Your task to perform on an android device: find which apps use the phone's location Image 0: 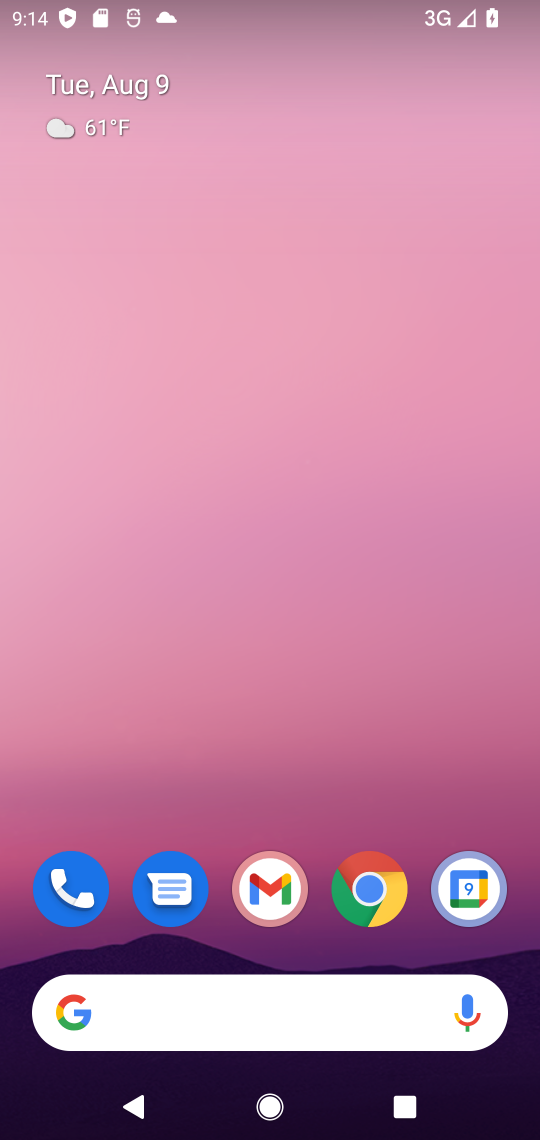
Step 0: drag from (198, 808) to (350, 71)
Your task to perform on an android device: find which apps use the phone's location Image 1: 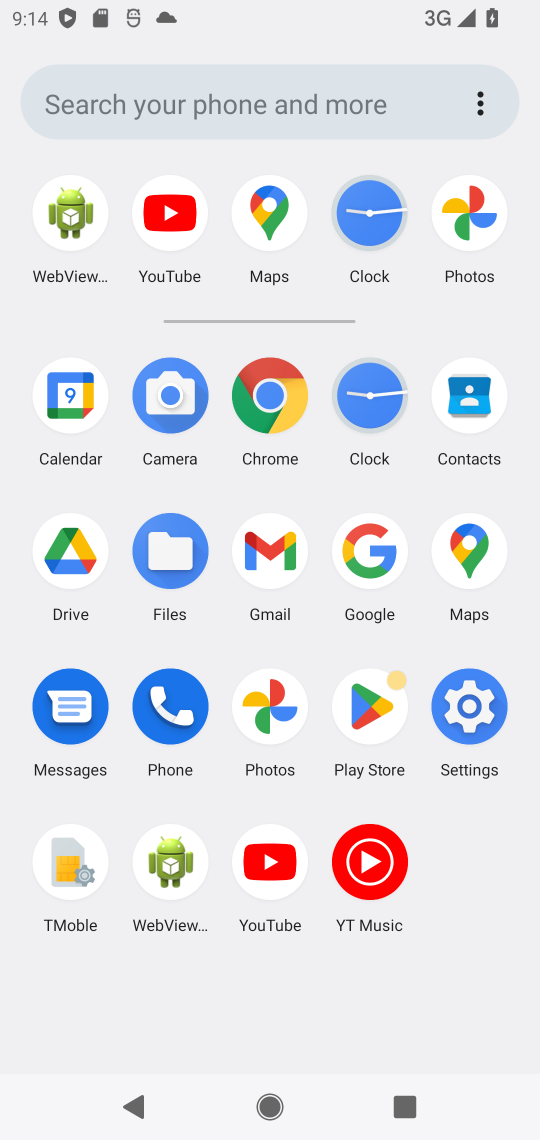
Step 1: click (473, 719)
Your task to perform on an android device: find which apps use the phone's location Image 2: 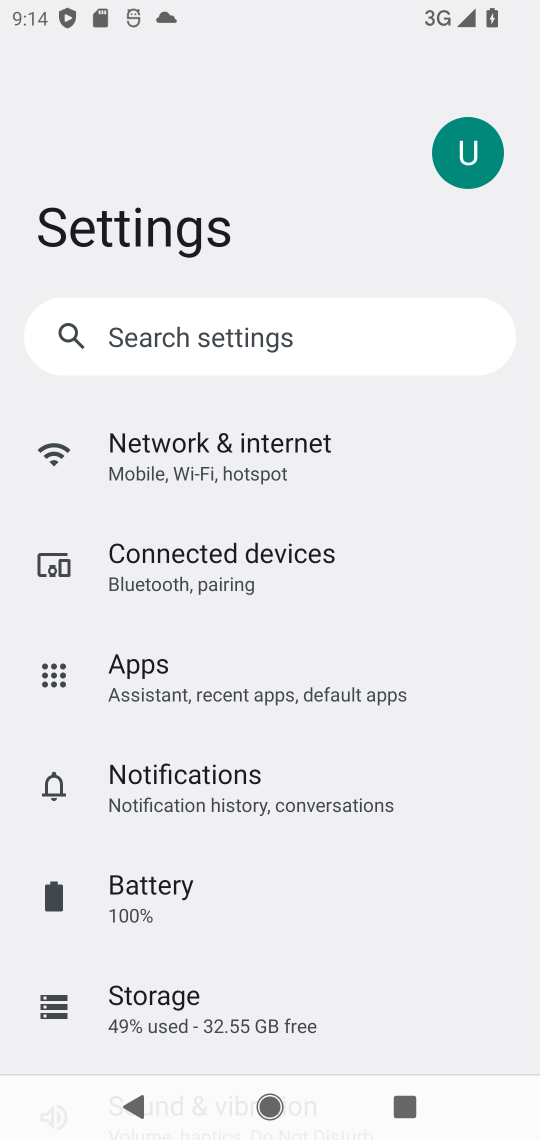
Step 2: drag from (201, 959) to (101, 345)
Your task to perform on an android device: find which apps use the phone's location Image 3: 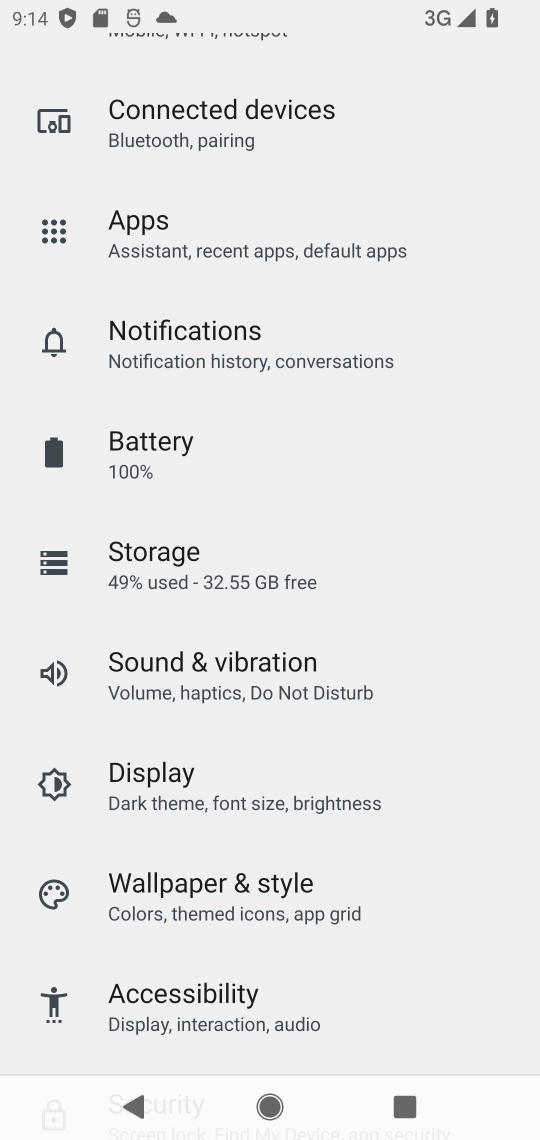
Step 3: drag from (169, 990) to (102, 354)
Your task to perform on an android device: find which apps use the phone's location Image 4: 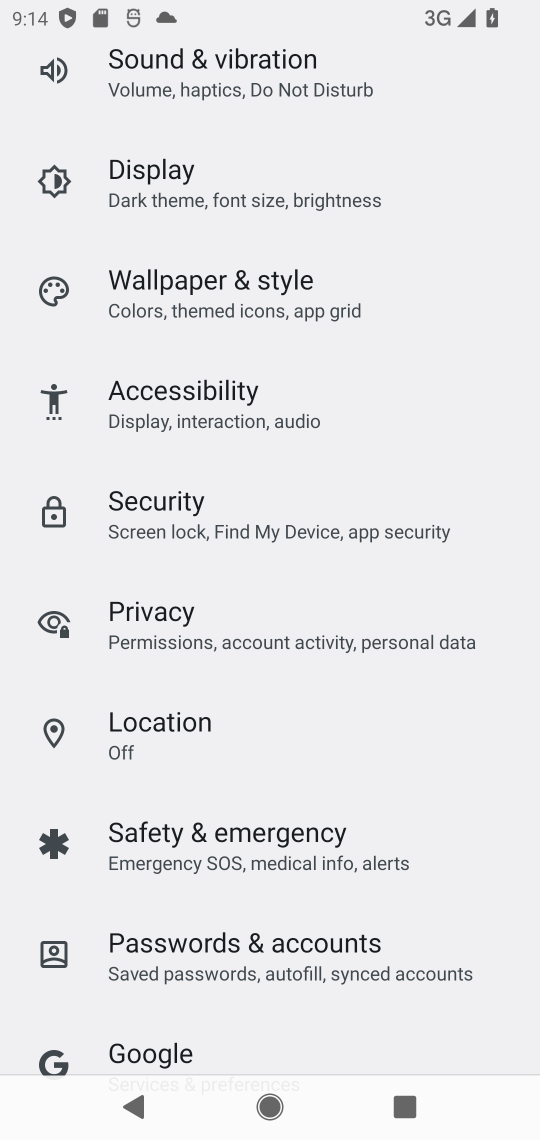
Step 4: click (147, 771)
Your task to perform on an android device: find which apps use the phone's location Image 5: 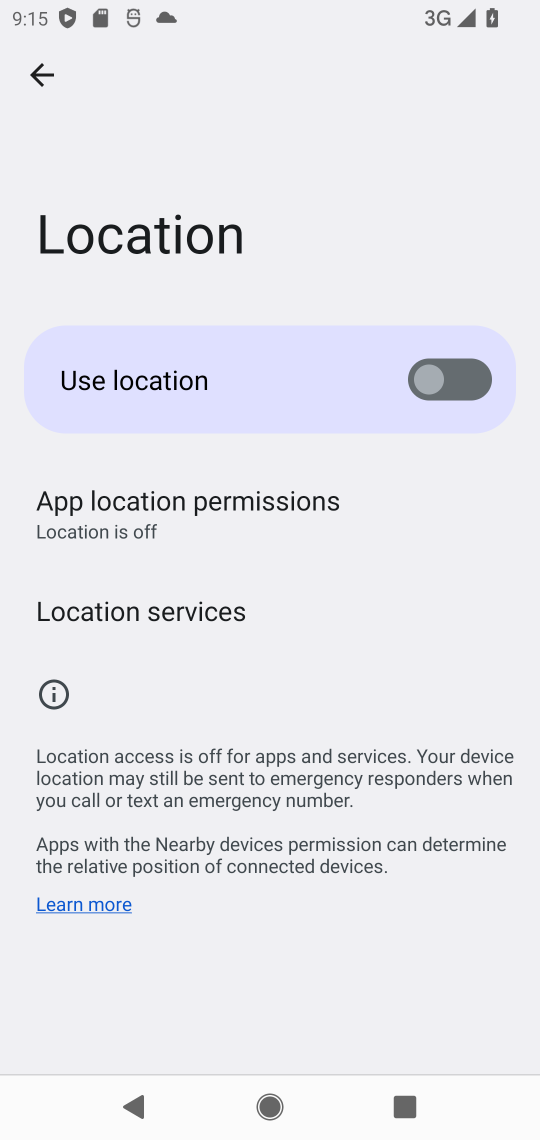
Step 5: click (90, 530)
Your task to perform on an android device: find which apps use the phone's location Image 6: 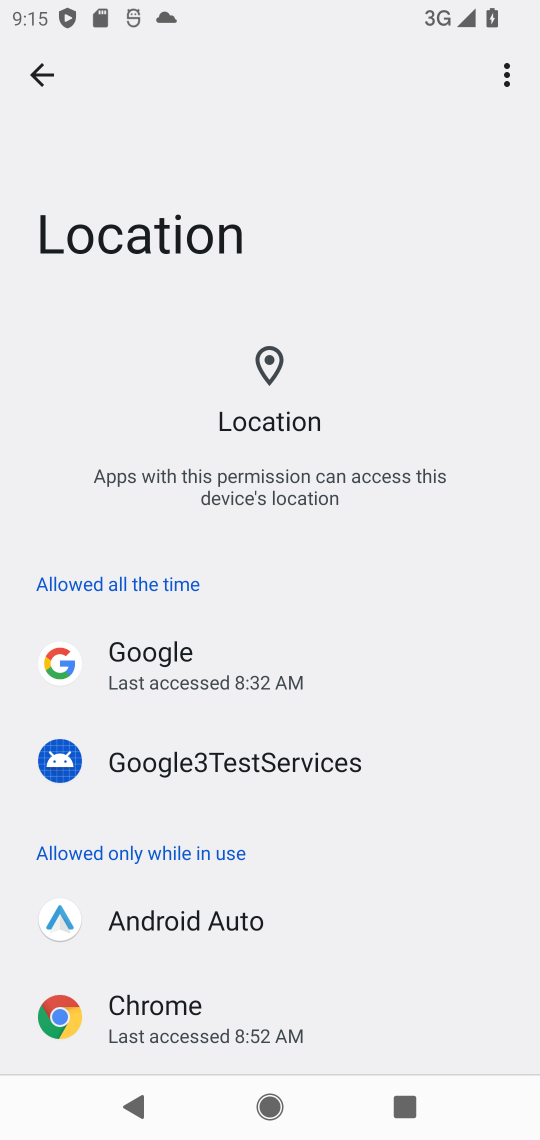
Step 6: task complete